Your task to perform on an android device: Open Maps and search for coffee Image 0: 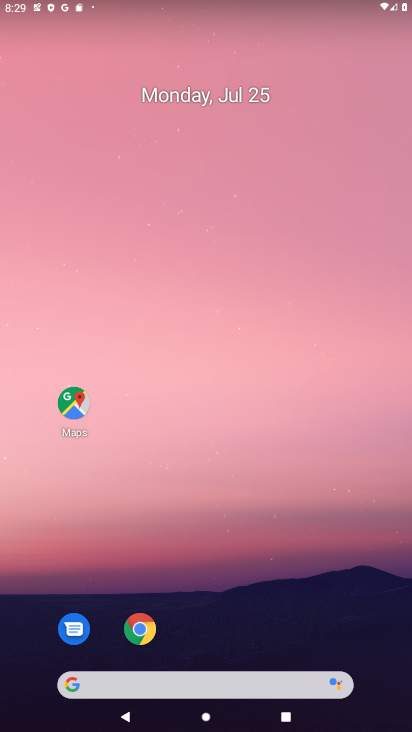
Step 0: click (73, 400)
Your task to perform on an android device: Open Maps and search for coffee Image 1: 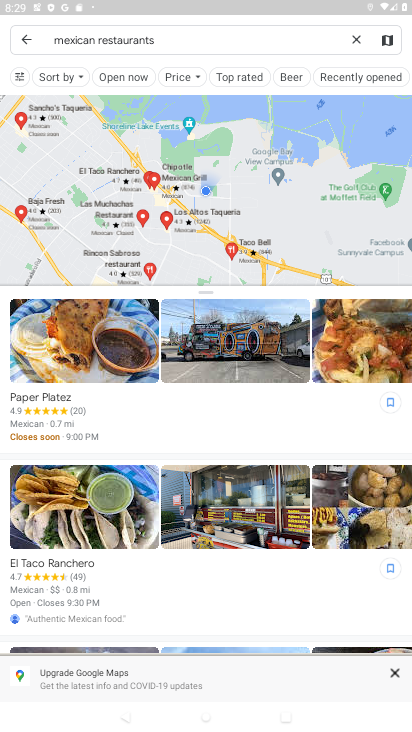
Step 1: click (355, 38)
Your task to perform on an android device: Open Maps and search for coffee Image 2: 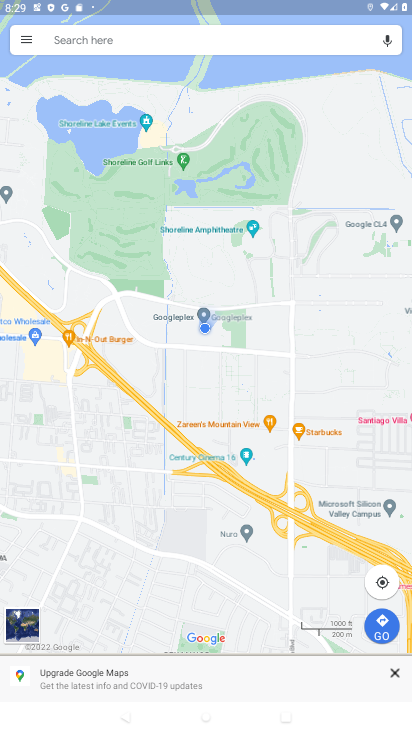
Step 2: click (133, 41)
Your task to perform on an android device: Open Maps and search for coffee Image 3: 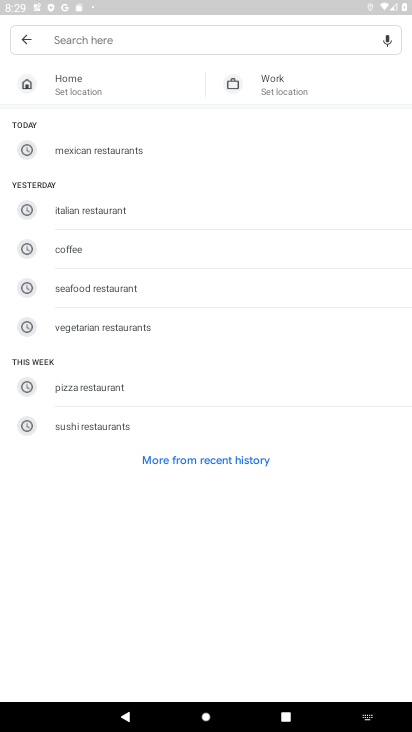
Step 3: type "coffee"
Your task to perform on an android device: Open Maps and search for coffee Image 4: 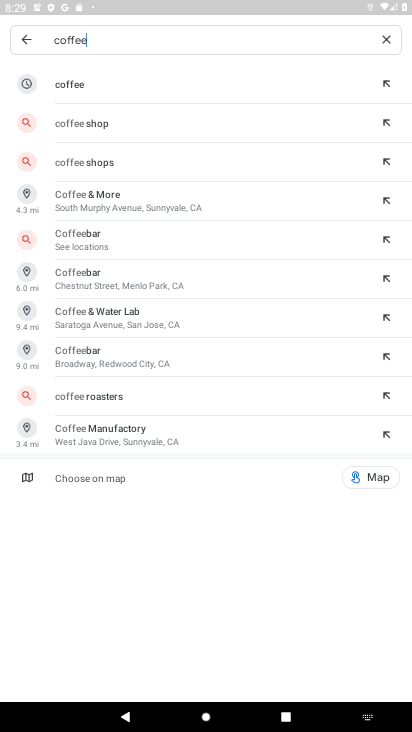
Step 4: click (55, 79)
Your task to perform on an android device: Open Maps and search for coffee Image 5: 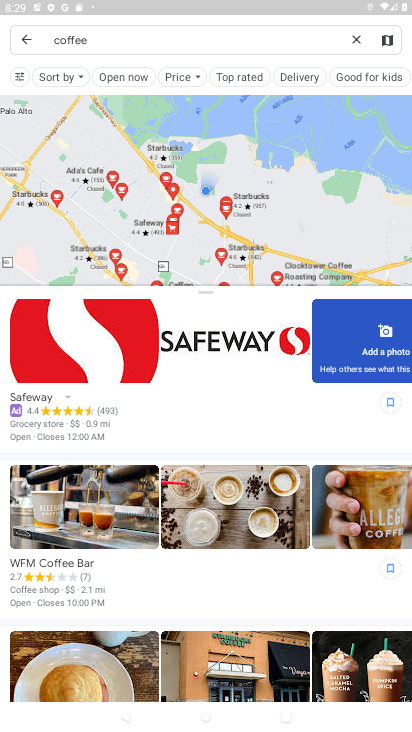
Step 5: task complete